Your task to perform on an android device: Open Wikipedia Image 0: 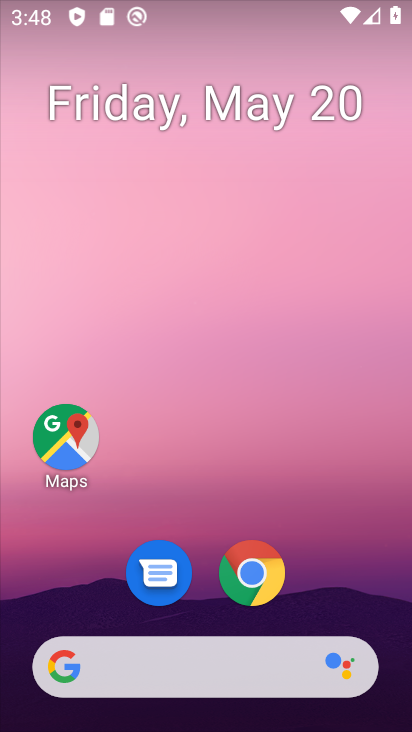
Step 0: drag from (301, 568) to (341, 235)
Your task to perform on an android device: Open Wikipedia Image 1: 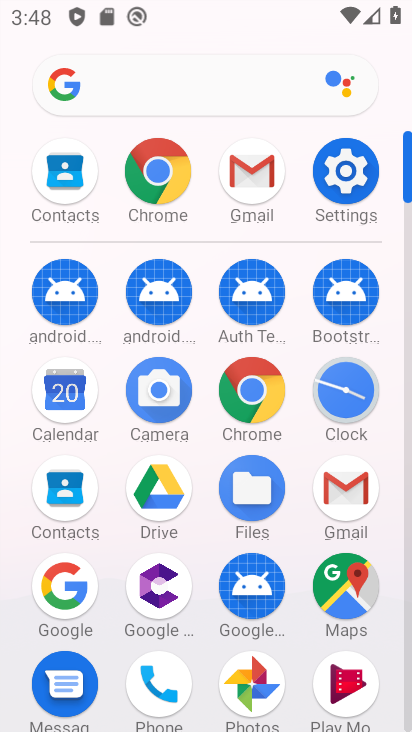
Step 1: click (252, 390)
Your task to perform on an android device: Open Wikipedia Image 2: 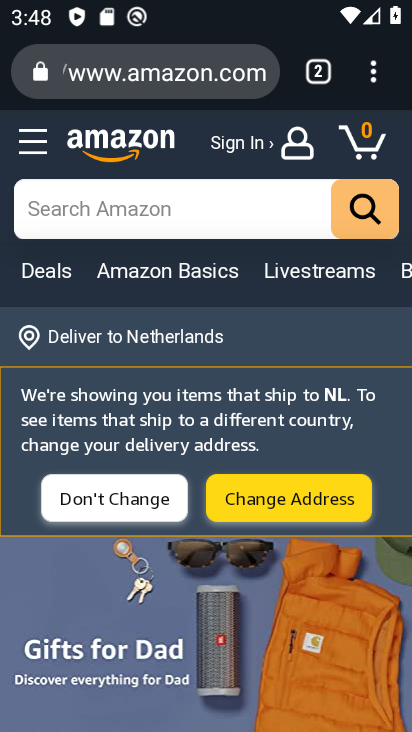
Step 2: click (193, 78)
Your task to perform on an android device: Open Wikipedia Image 3: 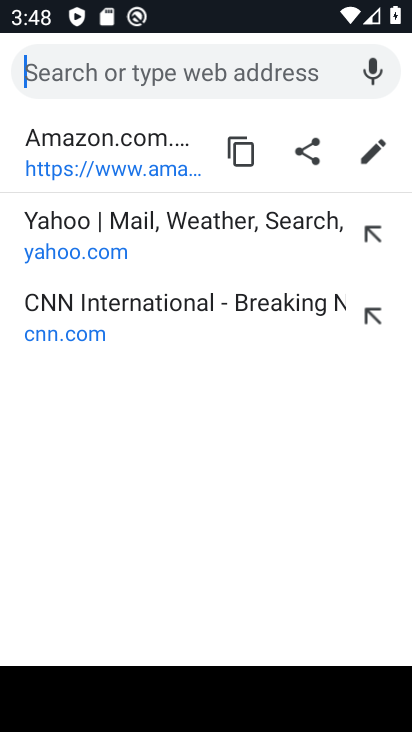
Step 3: type "wikipedia"
Your task to perform on an android device: Open Wikipedia Image 4: 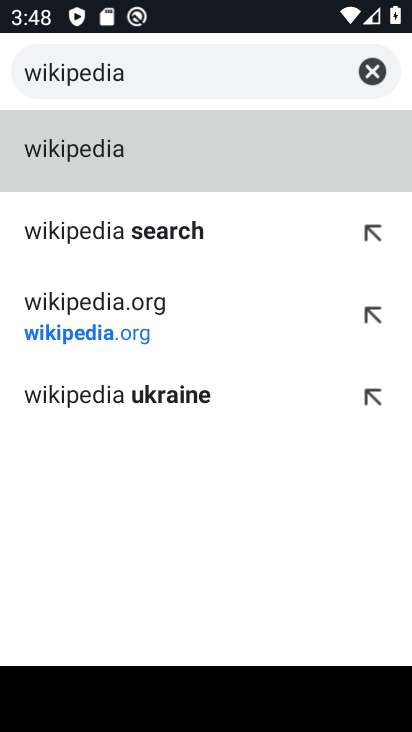
Step 4: click (125, 152)
Your task to perform on an android device: Open Wikipedia Image 5: 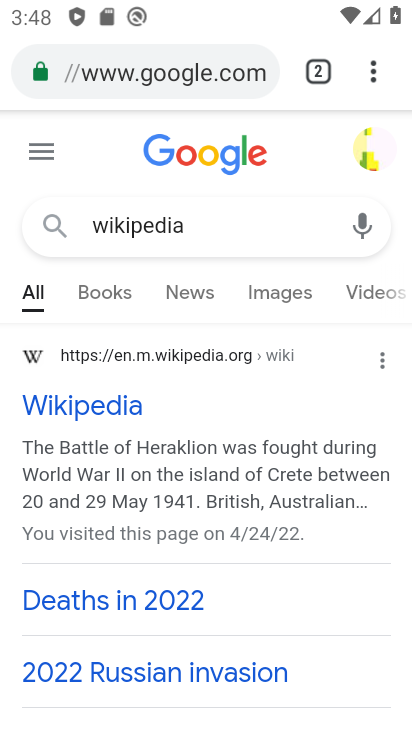
Step 5: click (127, 402)
Your task to perform on an android device: Open Wikipedia Image 6: 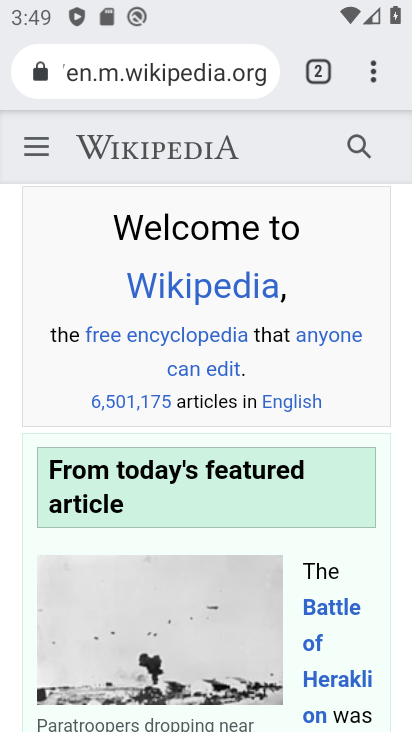
Step 6: task complete